Your task to perform on an android device: When is my next appointment? Image 0: 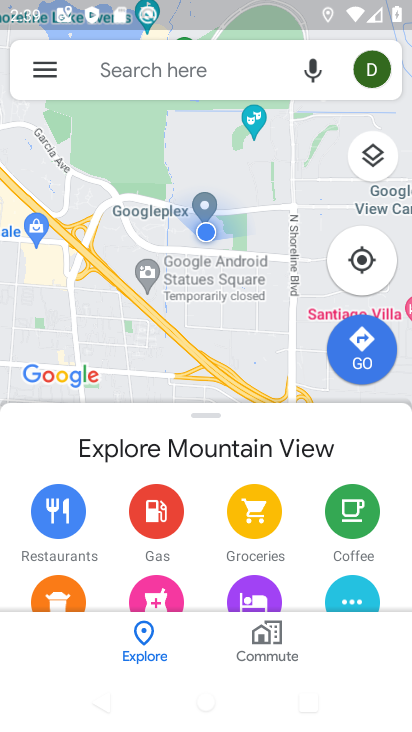
Step 0: press home button
Your task to perform on an android device: When is my next appointment? Image 1: 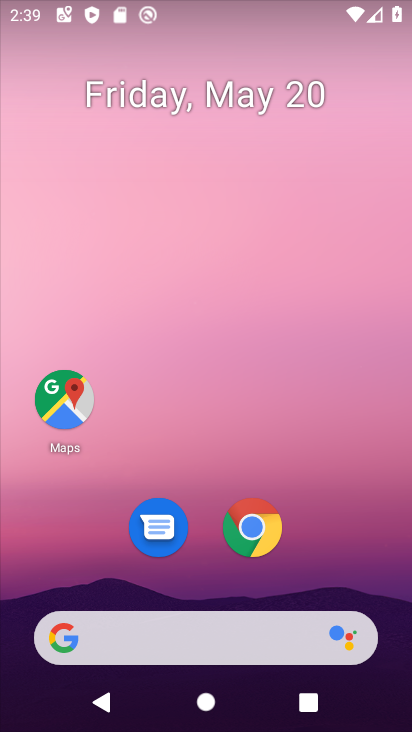
Step 1: drag from (247, 697) to (265, 123)
Your task to perform on an android device: When is my next appointment? Image 2: 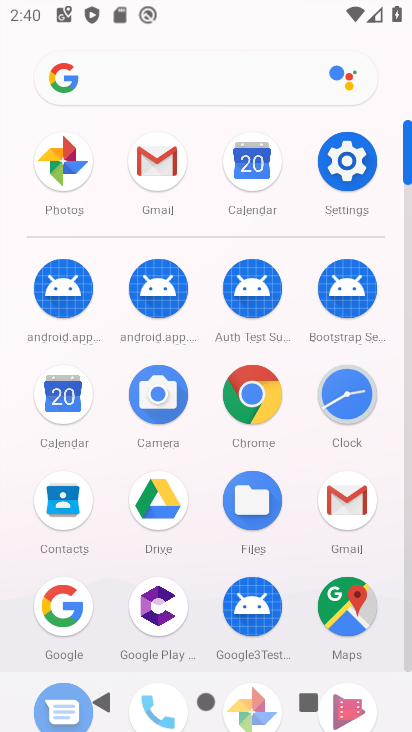
Step 2: click (60, 418)
Your task to perform on an android device: When is my next appointment? Image 3: 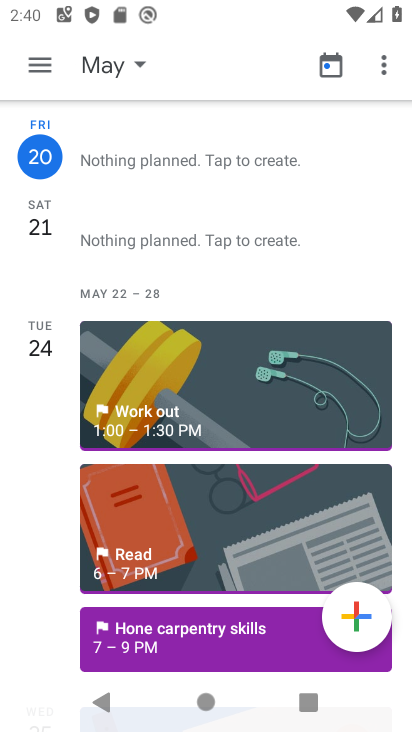
Step 3: click (44, 61)
Your task to perform on an android device: When is my next appointment? Image 4: 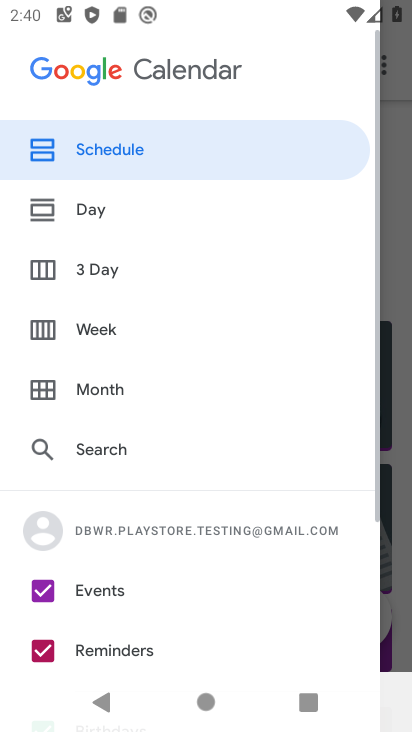
Step 4: click (160, 151)
Your task to perform on an android device: When is my next appointment? Image 5: 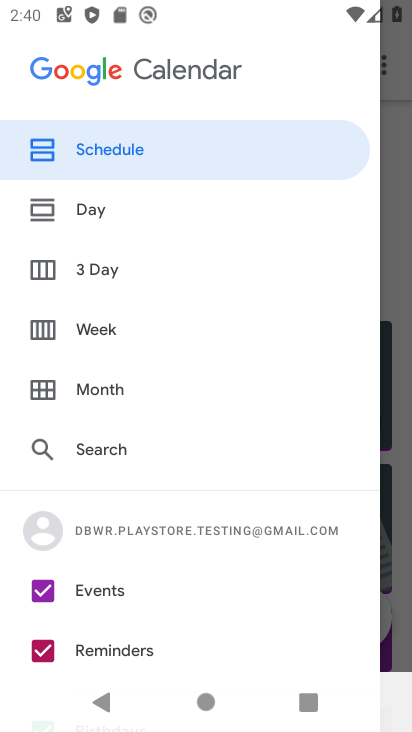
Step 5: task complete